Your task to perform on an android device: star an email in the gmail app Image 0: 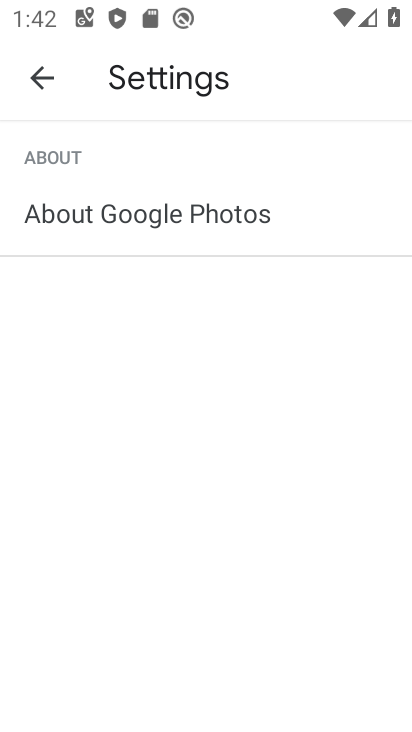
Step 0: press back button
Your task to perform on an android device: star an email in the gmail app Image 1: 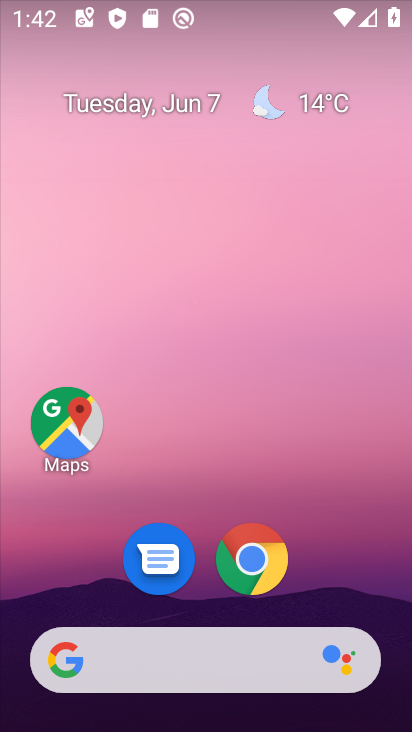
Step 1: drag from (362, 594) to (308, 41)
Your task to perform on an android device: star an email in the gmail app Image 2: 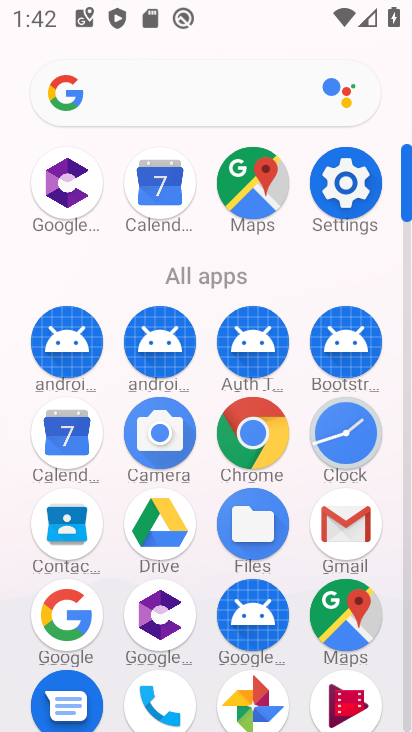
Step 2: drag from (9, 620) to (21, 255)
Your task to perform on an android device: star an email in the gmail app Image 3: 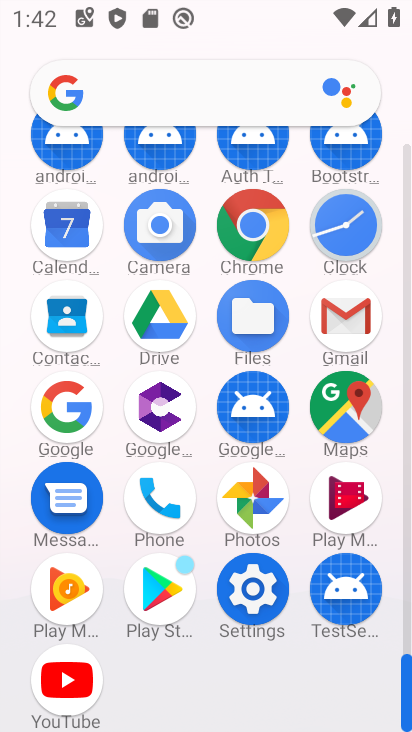
Step 3: click (348, 312)
Your task to perform on an android device: star an email in the gmail app Image 4: 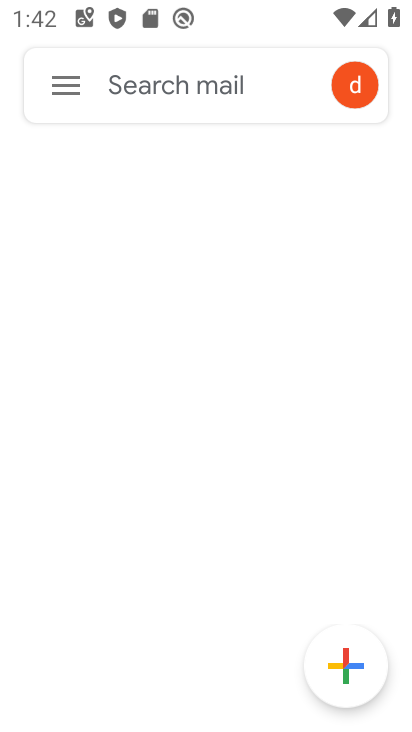
Step 4: click (69, 90)
Your task to perform on an android device: star an email in the gmail app Image 5: 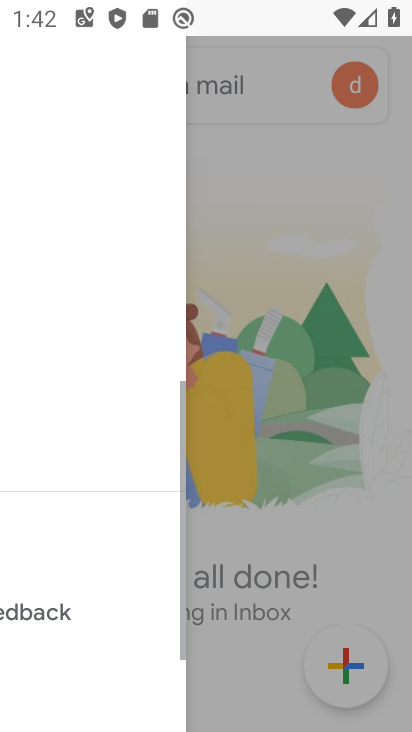
Step 5: drag from (310, 349) to (324, 585)
Your task to perform on an android device: star an email in the gmail app Image 6: 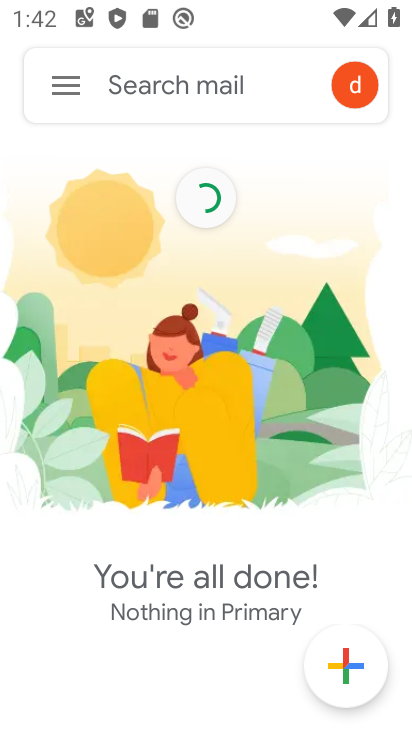
Step 6: click (70, 88)
Your task to perform on an android device: star an email in the gmail app Image 7: 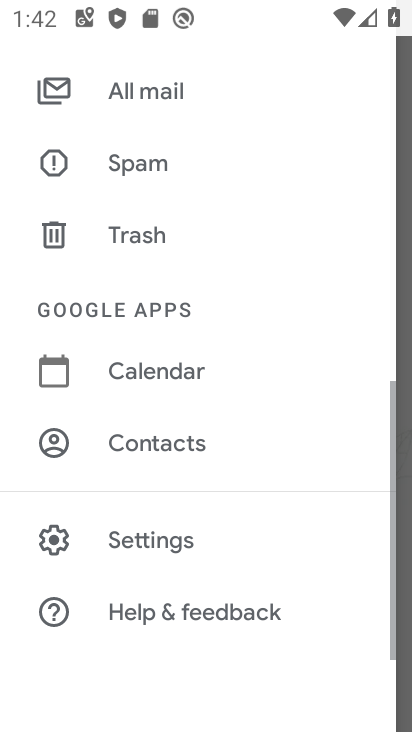
Step 7: drag from (213, 146) to (214, 538)
Your task to perform on an android device: star an email in the gmail app Image 8: 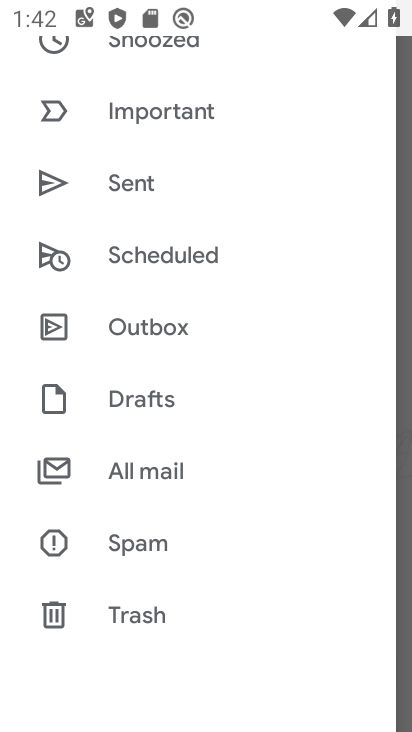
Step 8: drag from (177, 105) to (206, 592)
Your task to perform on an android device: star an email in the gmail app Image 9: 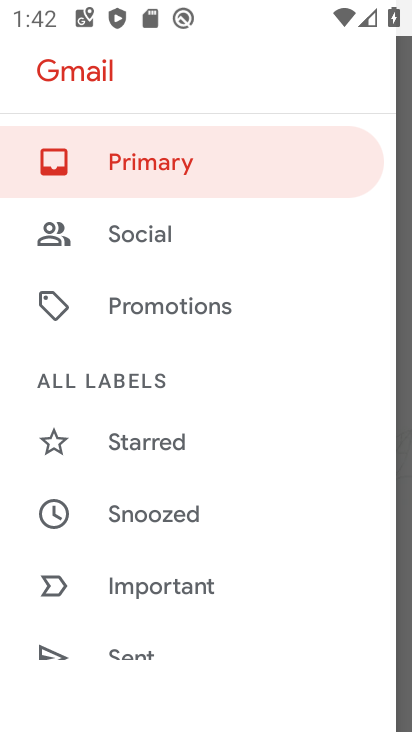
Step 9: click (166, 436)
Your task to perform on an android device: star an email in the gmail app Image 10: 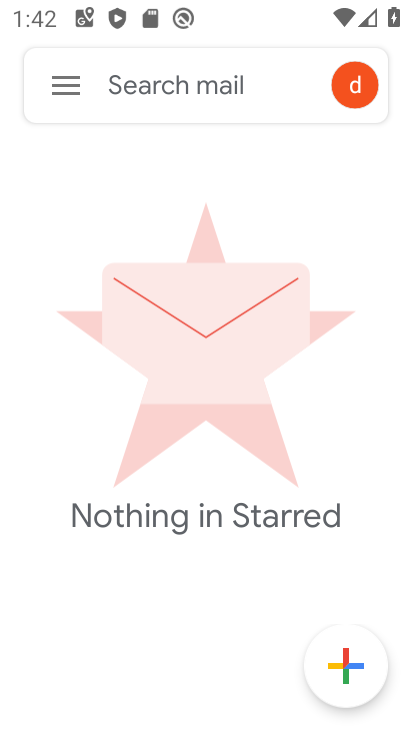
Step 10: task complete